Your task to perform on an android device: Open Google Chrome Image 0: 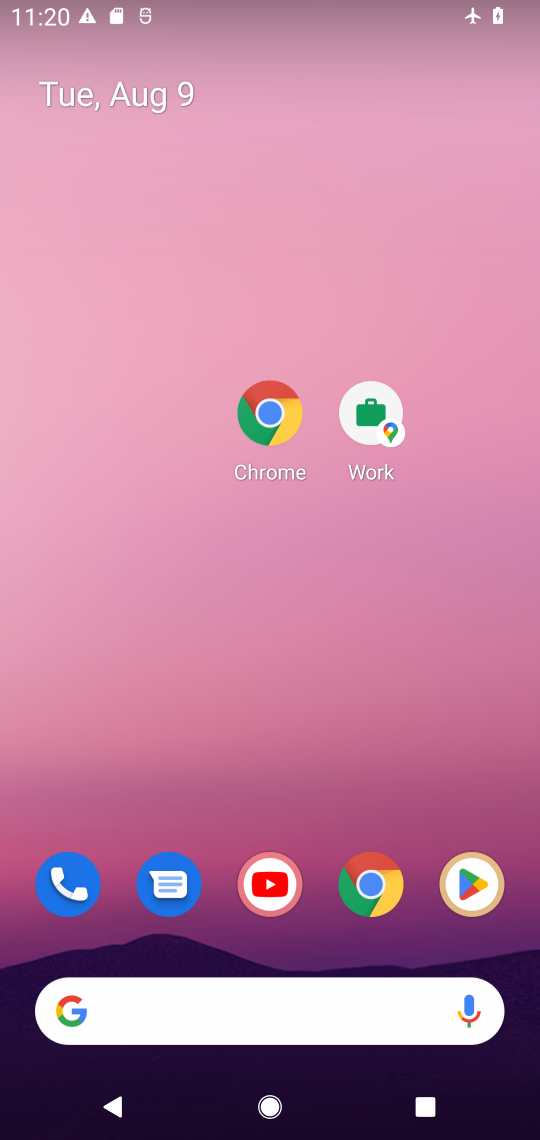
Step 0: drag from (322, 688) to (256, 62)
Your task to perform on an android device: Open Google Chrome Image 1: 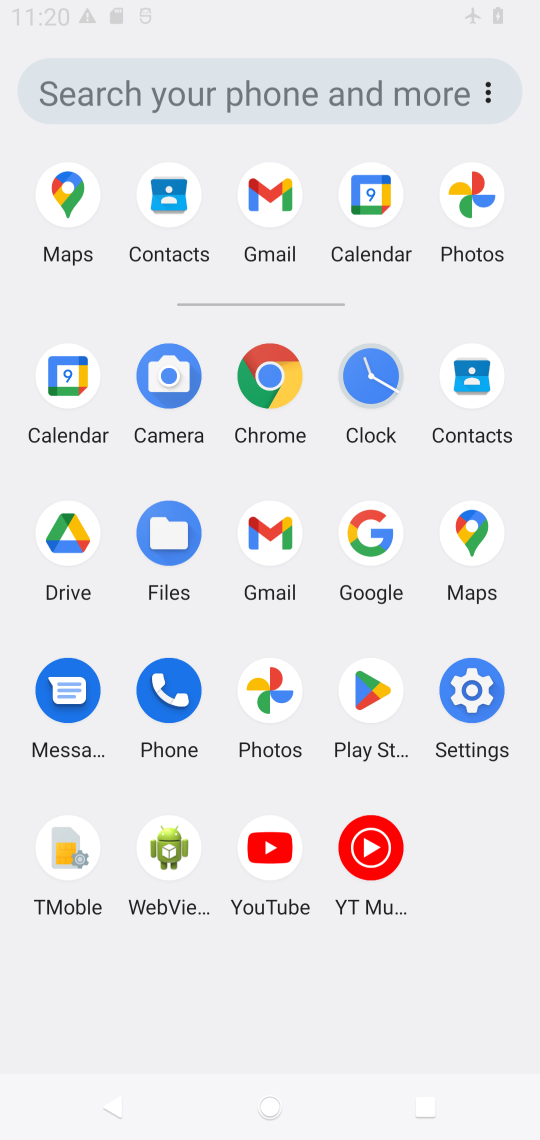
Step 1: drag from (281, 771) to (240, 344)
Your task to perform on an android device: Open Google Chrome Image 2: 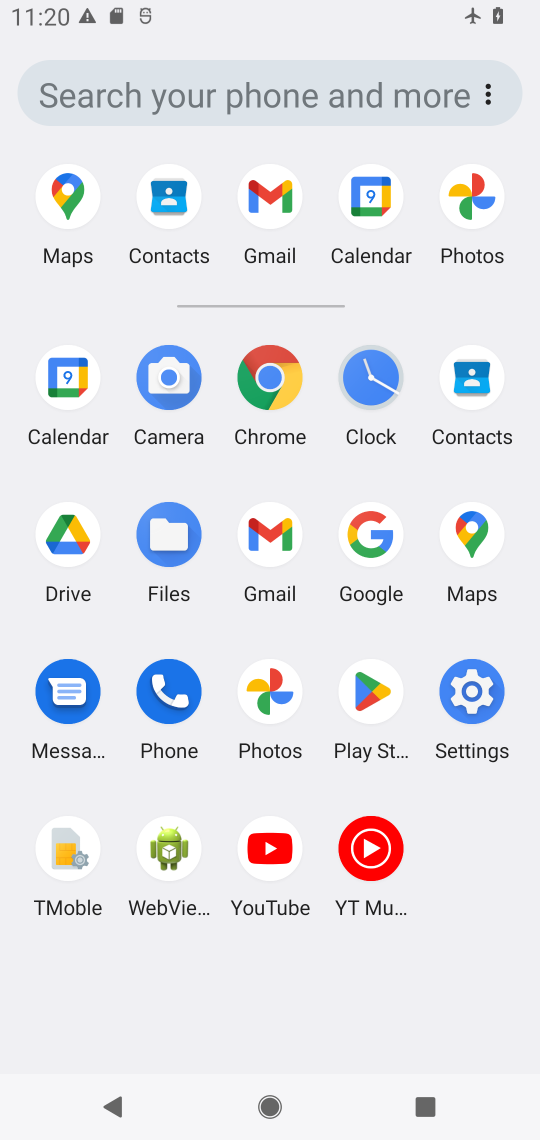
Step 2: click (262, 339)
Your task to perform on an android device: Open Google Chrome Image 3: 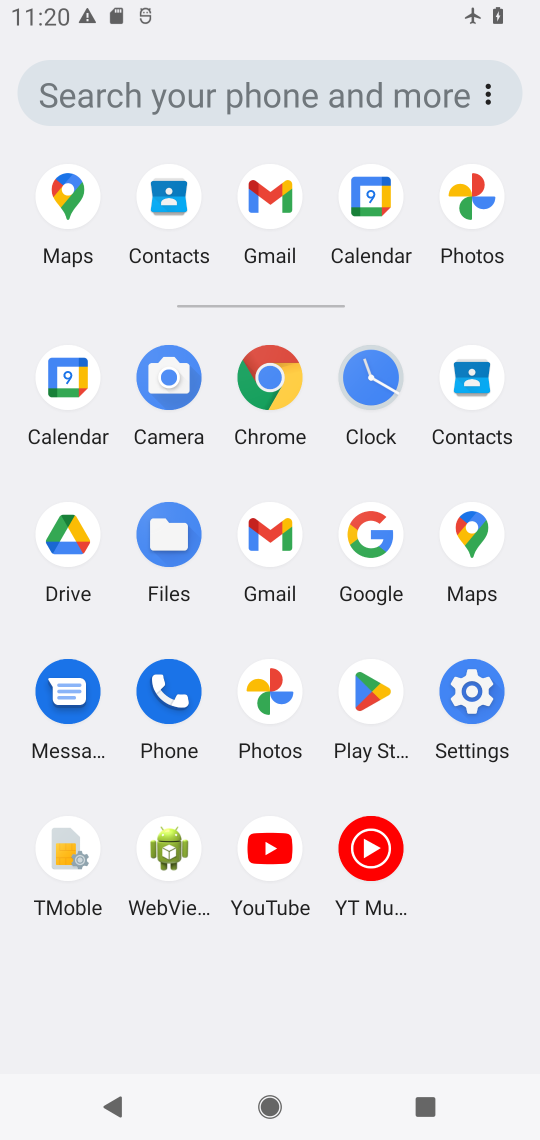
Step 3: click (262, 344)
Your task to perform on an android device: Open Google Chrome Image 4: 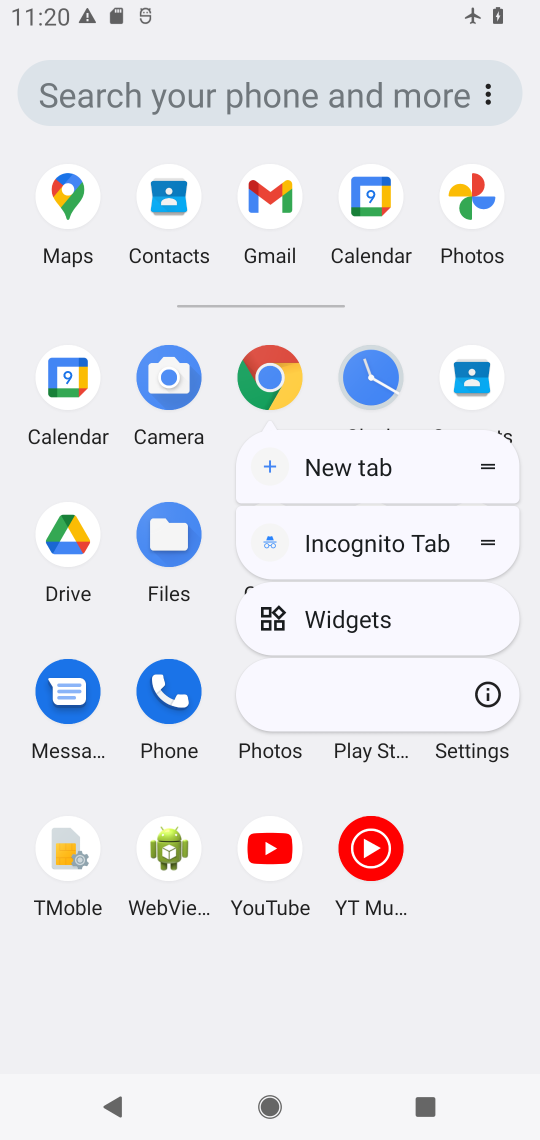
Step 4: click (260, 390)
Your task to perform on an android device: Open Google Chrome Image 5: 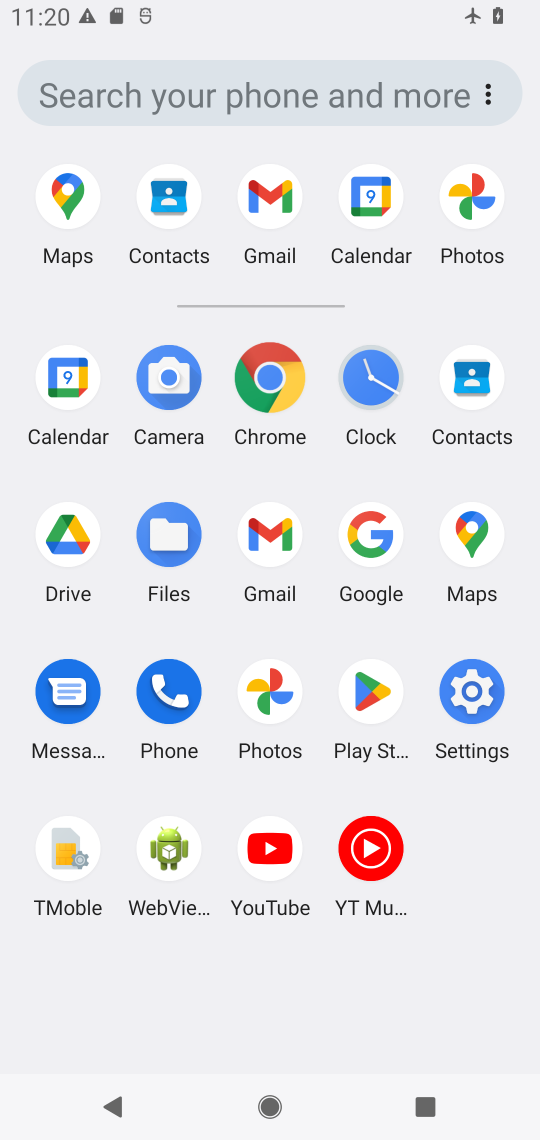
Step 5: click (260, 390)
Your task to perform on an android device: Open Google Chrome Image 6: 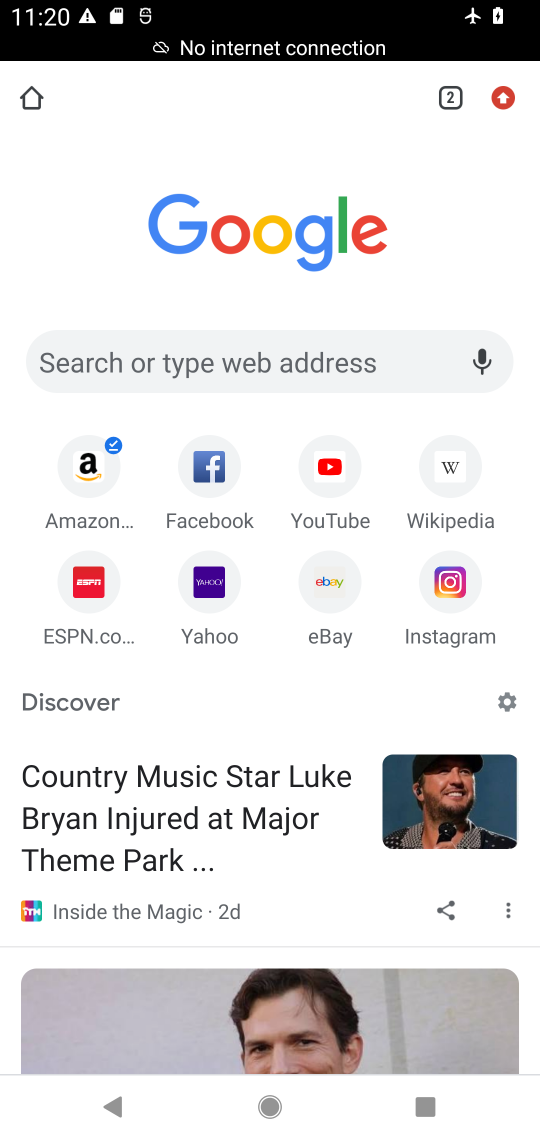
Step 6: task complete